Your task to perform on an android device: empty trash in the gmail app Image 0: 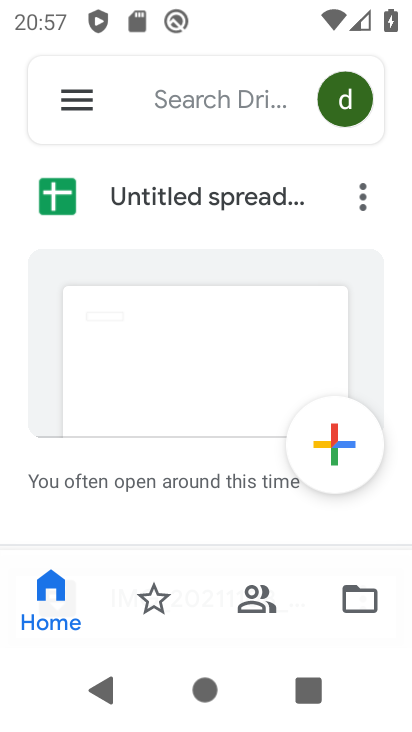
Step 0: press home button
Your task to perform on an android device: empty trash in the gmail app Image 1: 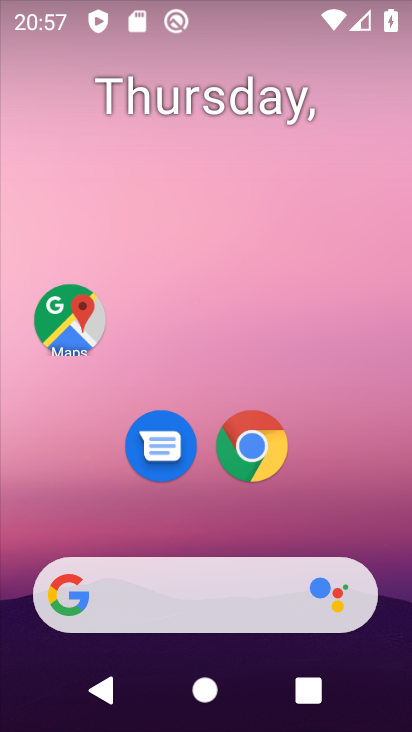
Step 1: drag from (331, 500) to (357, 44)
Your task to perform on an android device: empty trash in the gmail app Image 2: 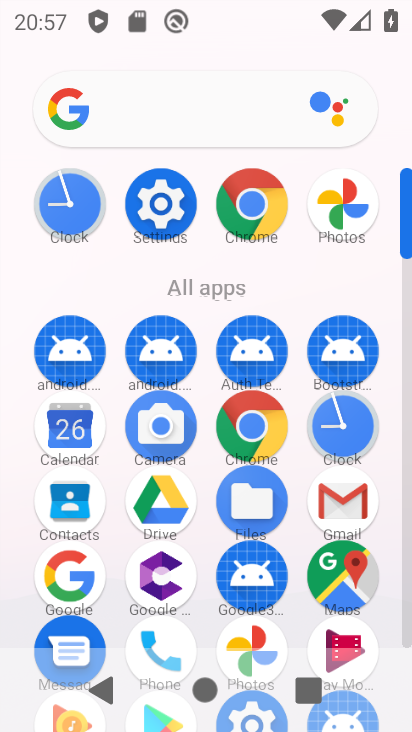
Step 2: click (340, 236)
Your task to perform on an android device: empty trash in the gmail app Image 3: 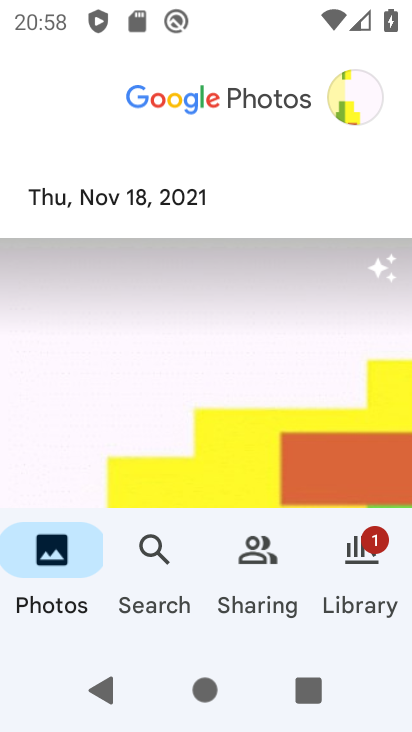
Step 3: click (344, 85)
Your task to perform on an android device: empty trash in the gmail app Image 4: 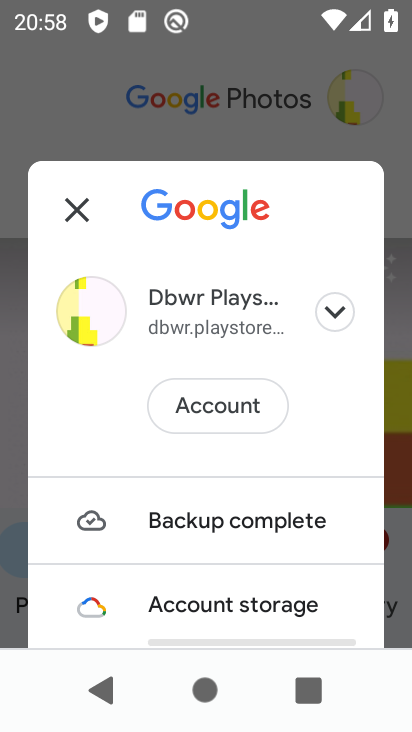
Step 4: click (228, 48)
Your task to perform on an android device: empty trash in the gmail app Image 5: 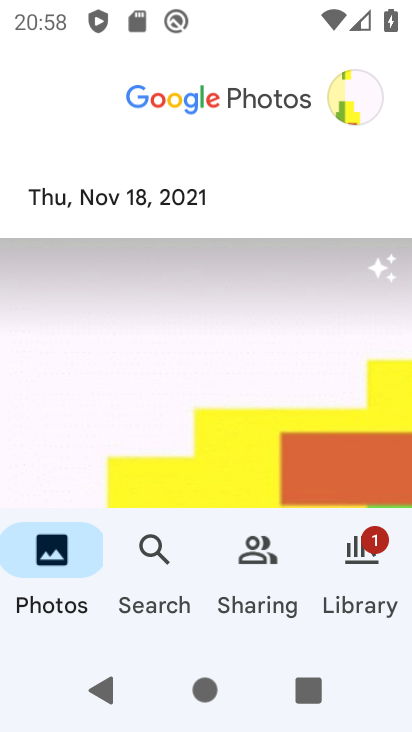
Step 5: click (369, 582)
Your task to perform on an android device: empty trash in the gmail app Image 6: 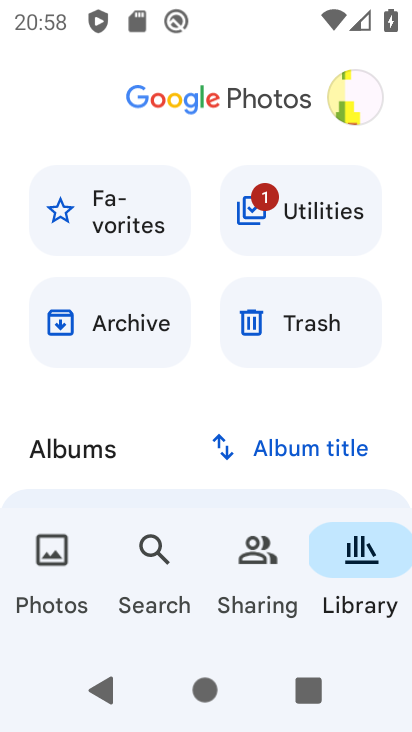
Step 6: click (274, 315)
Your task to perform on an android device: empty trash in the gmail app Image 7: 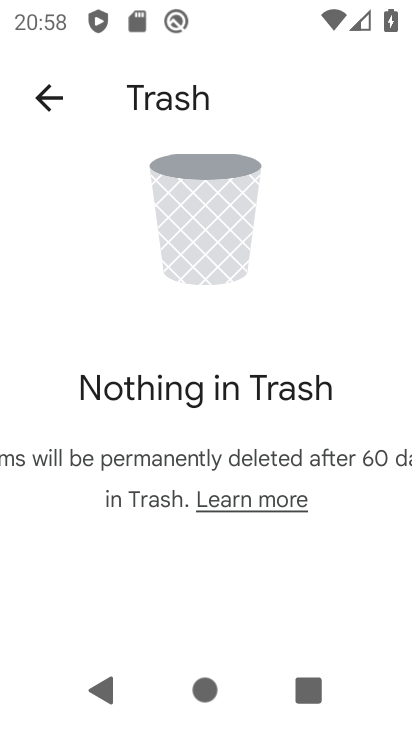
Step 7: task complete